Your task to perform on an android device: set the timer Image 0: 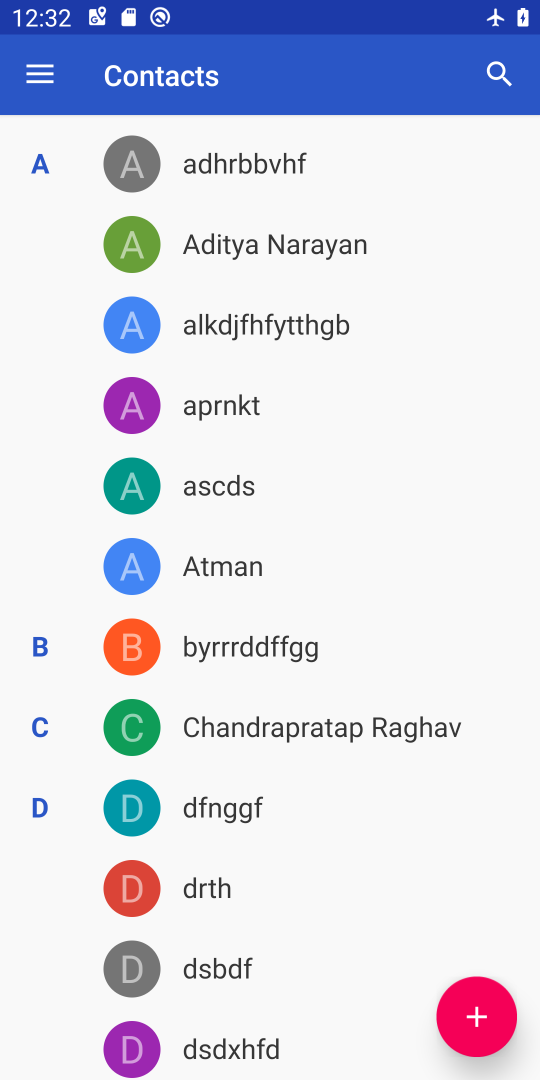
Step 0: press home button
Your task to perform on an android device: set the timer Image 1: 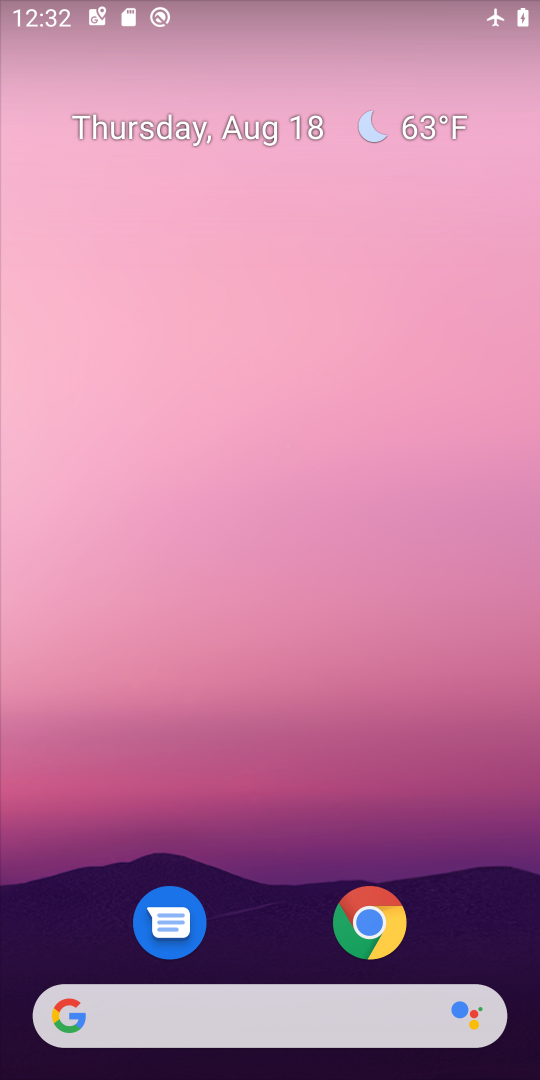
Step 1: drag from (259, 844) to (186, 207)
Your task to perform on an android device: set the timer Image 2: 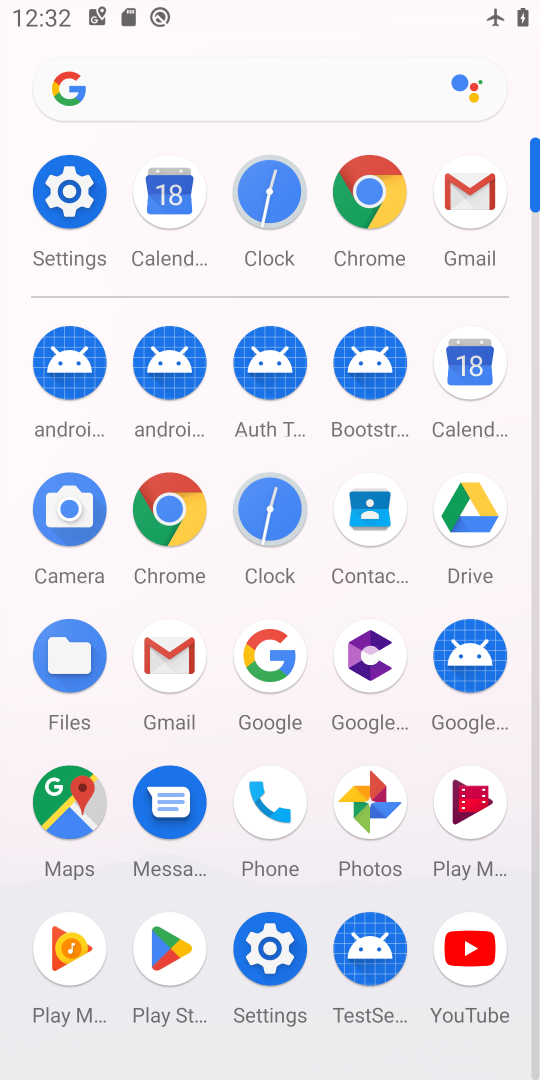
Step 2: click (263, 497)
Your task to perform on an android device: set the timer Image 3: 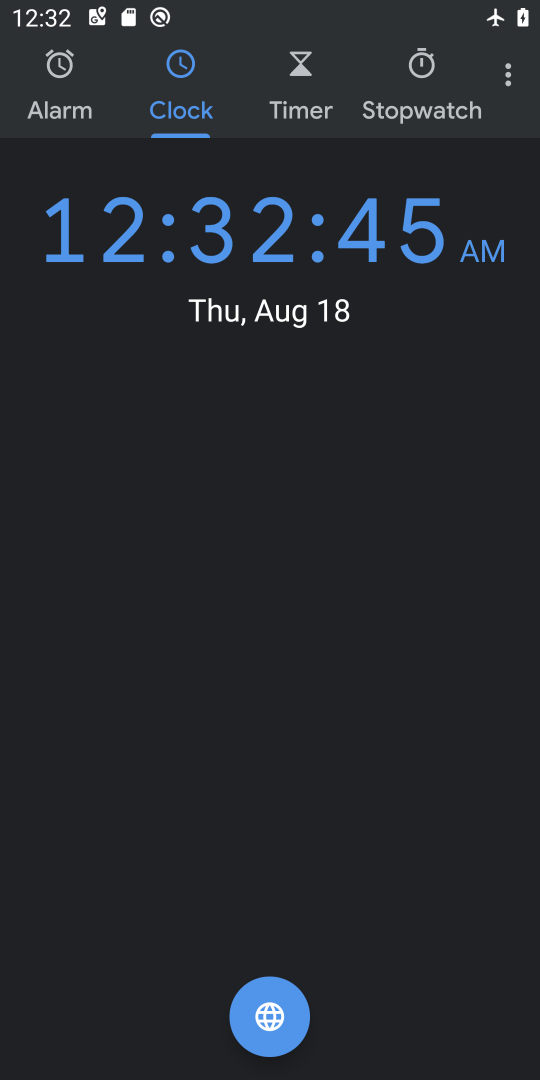
Step 3: click (303, 84)
Your task to perform on an android device: set the timer Image 4: 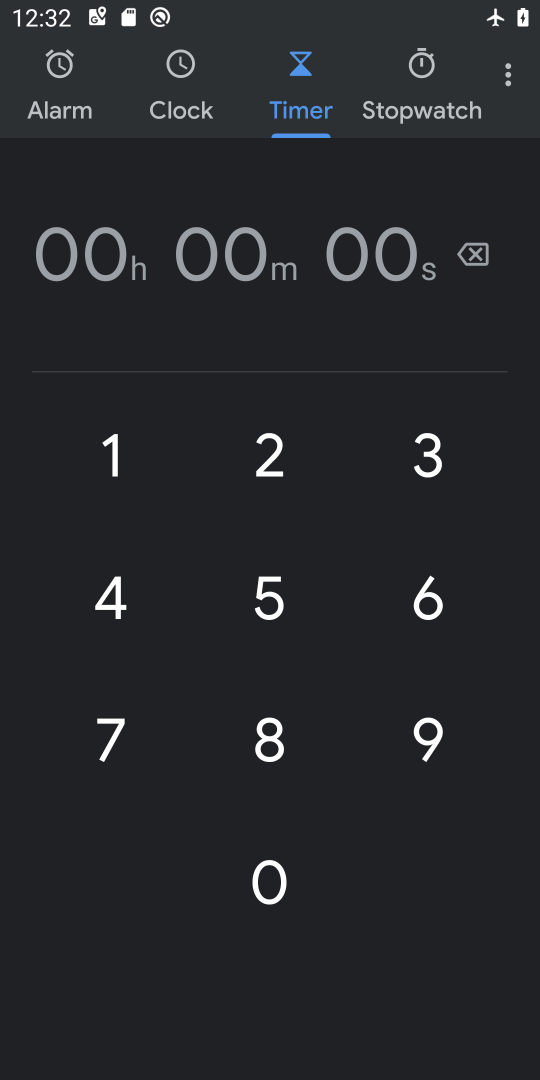
Step 4: click (127, 452)
Your task to perform on an android device: set the timer Image 5: 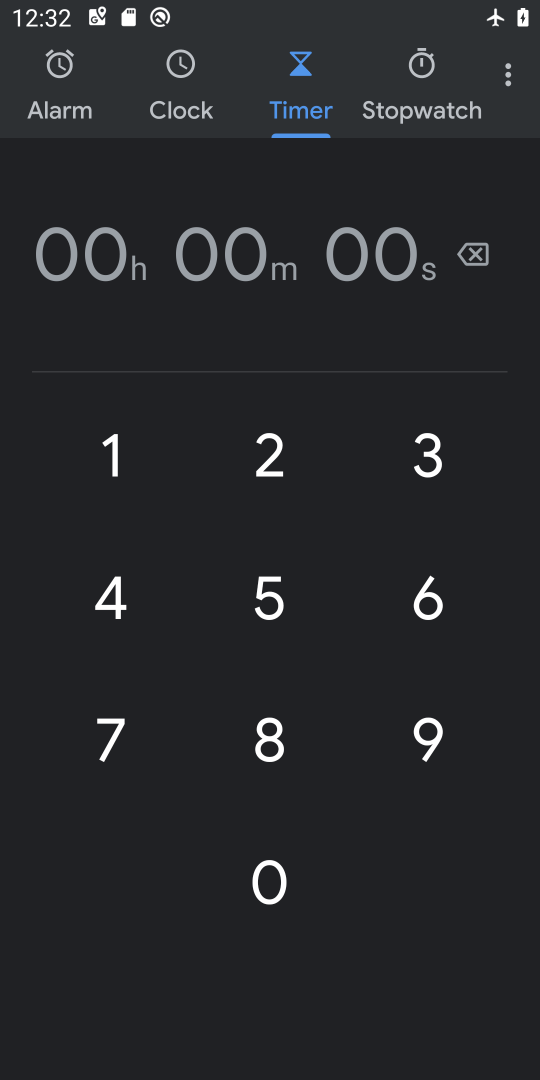
Step 5: click (127, 452)
Your task to perform on an android device: set the timer Image 6: 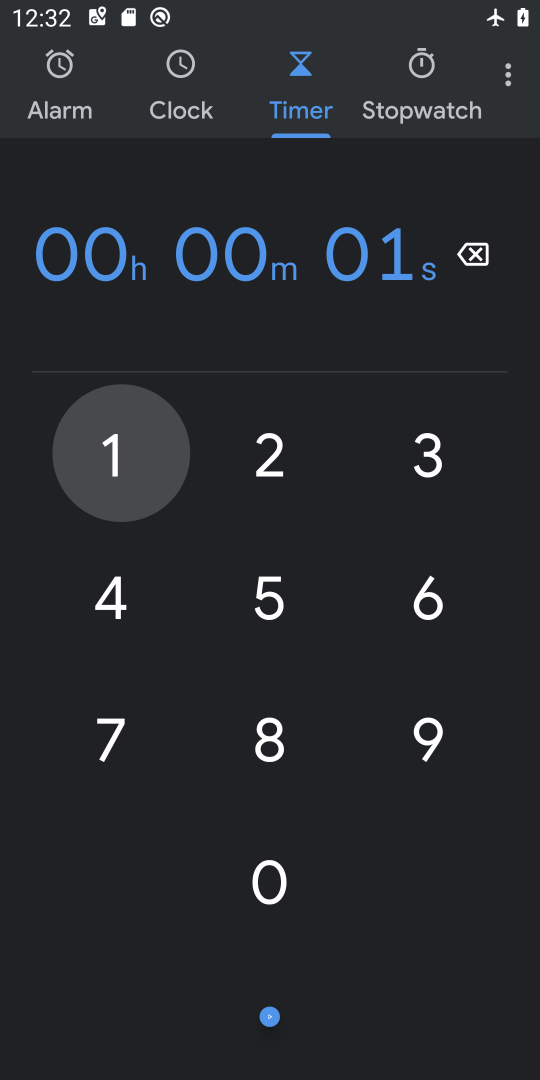
Step 6: click (127, 452)
Your task to perform on an android device: set the timer Image 7: 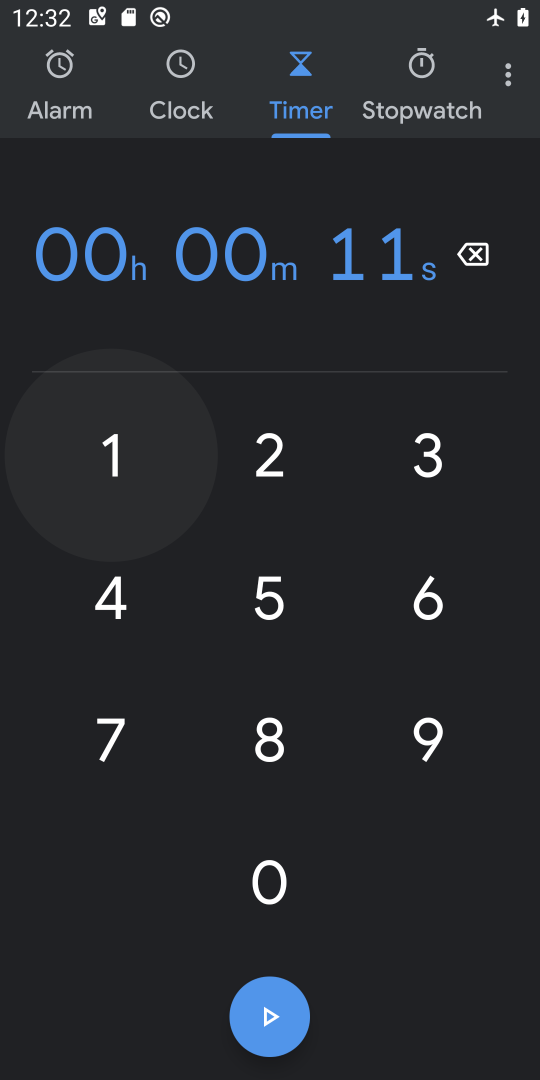
Step 7: click (127, 452)
Your task to perform on an android device: set the timer Image 8: 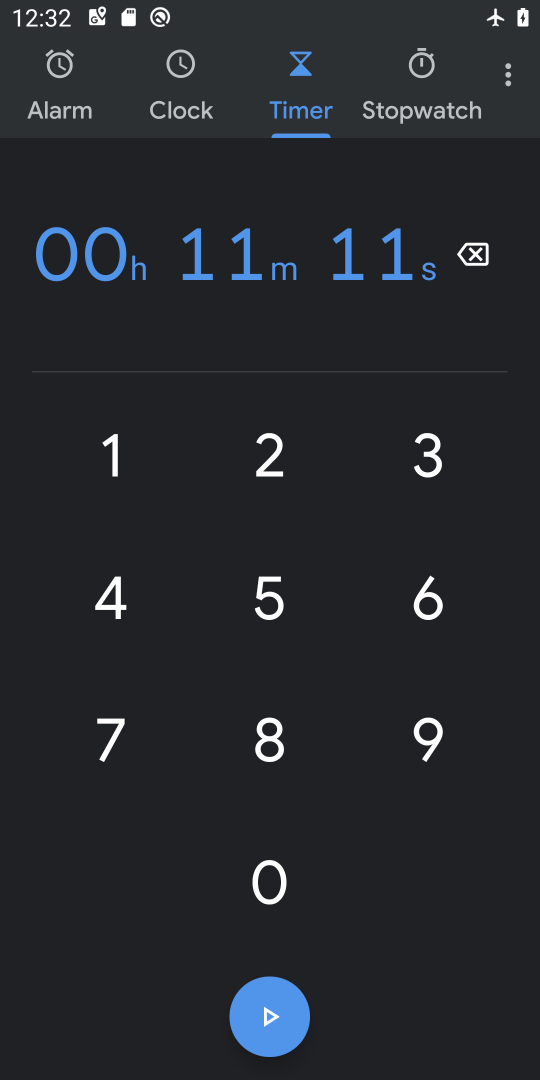
Step 8: click (127, 452)
Your task to perform on an android device: set the timer Image 9: 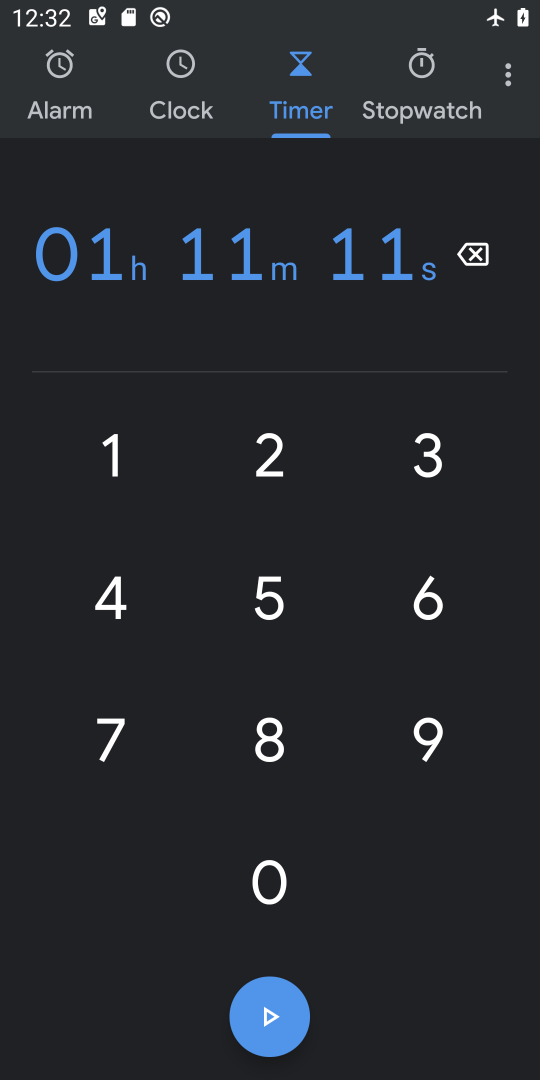
Step 9: task complete